Your task to perform on an android device: Turn on the flashlight Image 0: 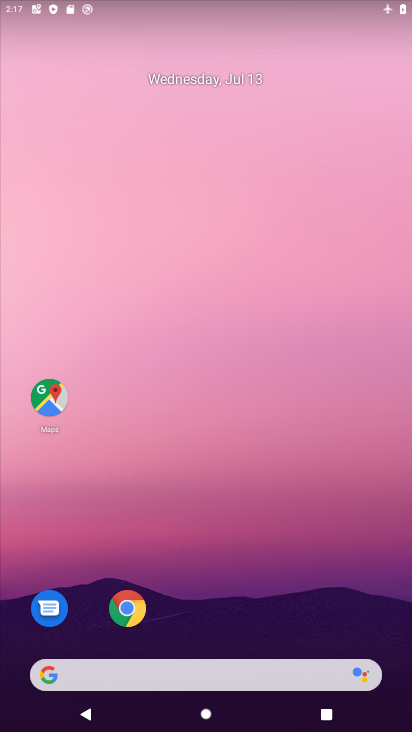
Step 0: drag from (186, 137) to (217, 5)
Your task to perform on an android device: Turn on the flashlight Image 1: 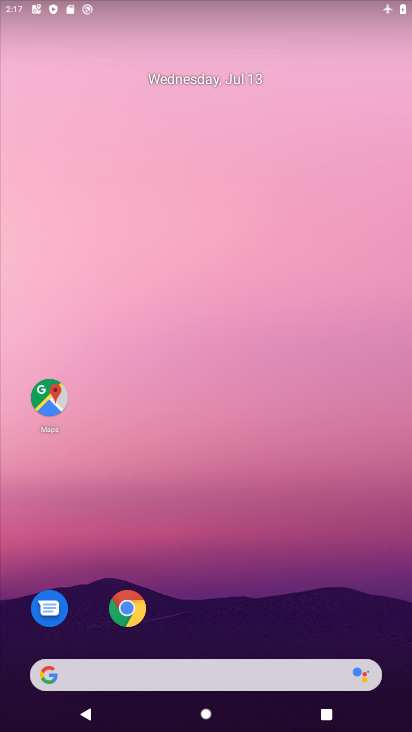
Step 1: task complete